Your task to perform on an android device: turn off javascript in the chrome app Image 0: 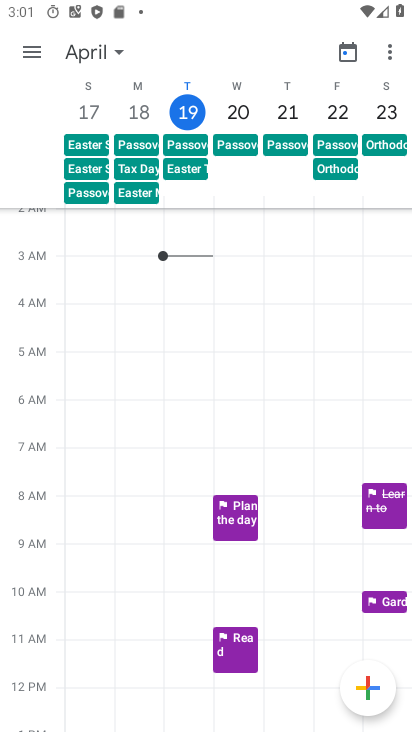
Step 0: press home button
Your task to perform on an android device: turn off javascript in the chrome app Image 1: 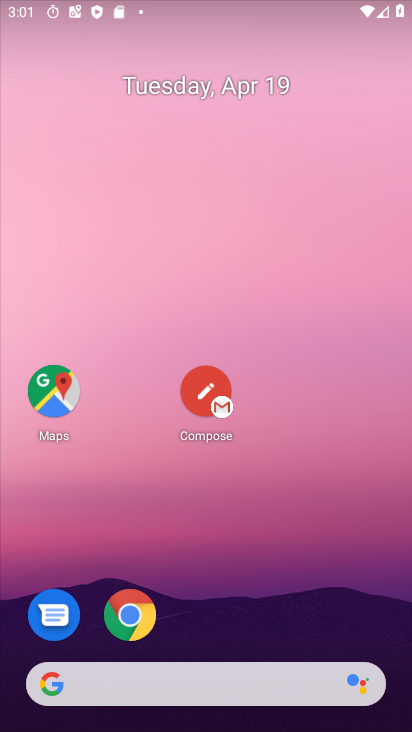
Step 1: drag from (232, 539) to (304, 23)
Your task to perform on an android device: turn off javascript in the chrome app Image 2: 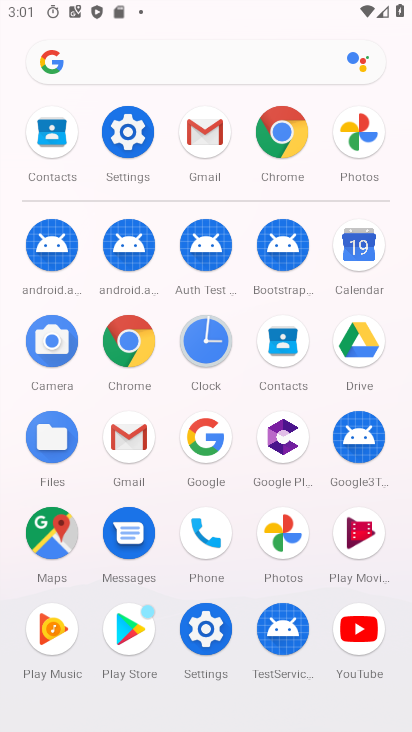
Step 2: click (201, 639)
Your task to perform on an android device: turn off javascript in the chrome app Image 3: 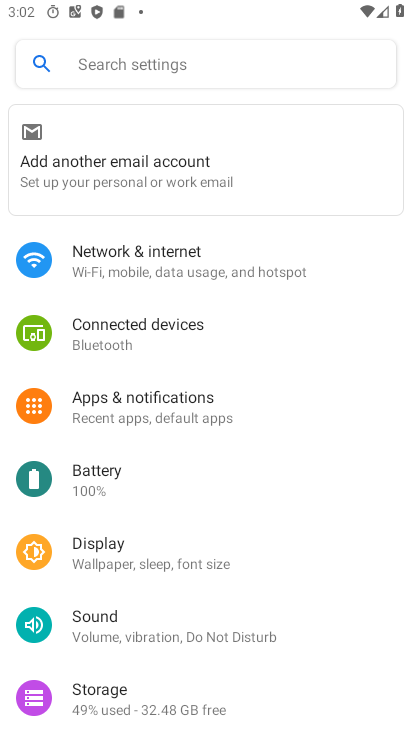
Step 3: press home button
Your task to perform on an android device: turn off javascript in the chrome app Image 4: 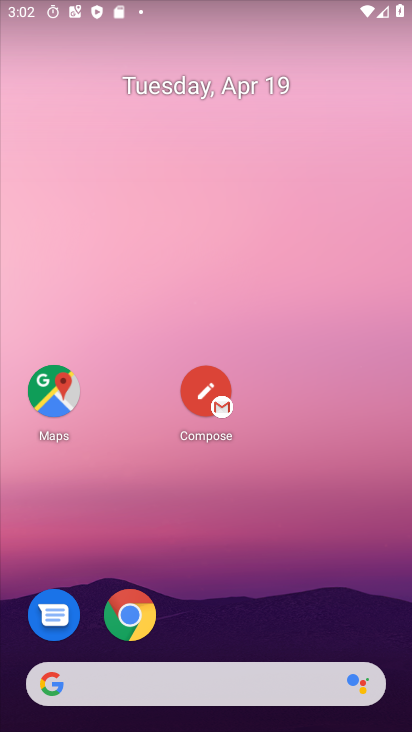
Step 4: drag from (246, 631) to (303, 40)
Your task to perform on an android device: turn off javascript in the chrome app Image 5: 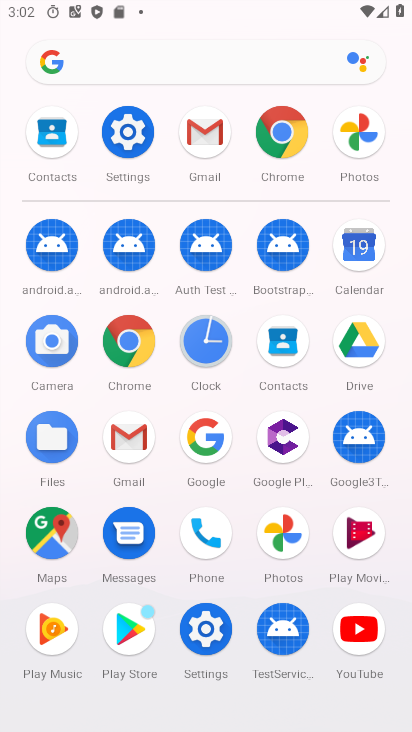
Step 5: click (127, 331)
Your task to perform on an android device: turn off javascript in the chrome app Image 6: 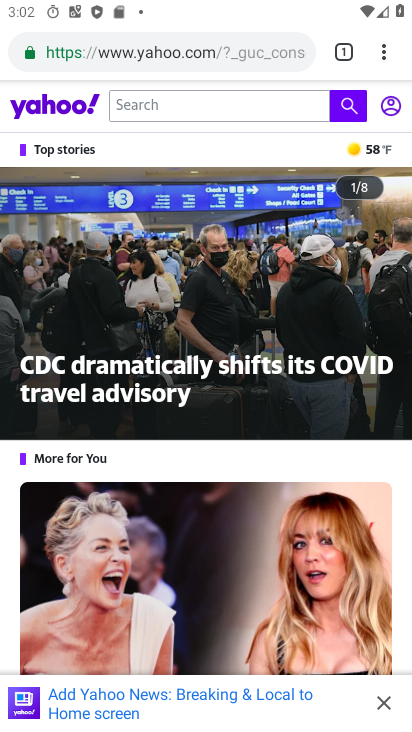
Step 6: click (376, 48)
Your task to perform on an android device: turn off javascript in the chrome app Image 7: 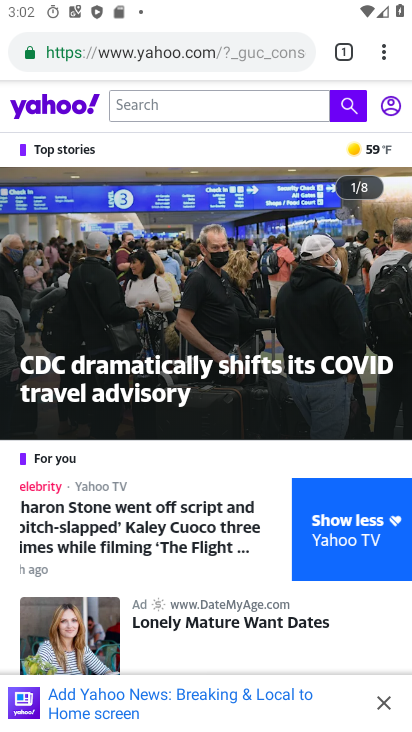
Step 7: click (383, 47)
Your task to perform on an android device: turn off javascript in the chrome app Image 8: 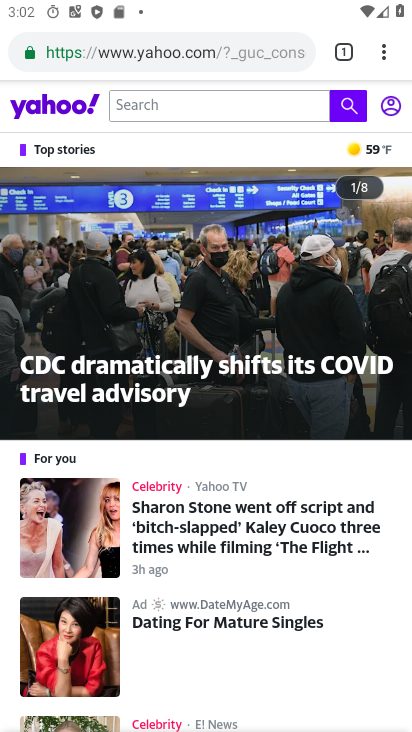
Step 8: click (388, 55)
Your task to perform on an android device: turn off javascript in the chrome app Image 9: 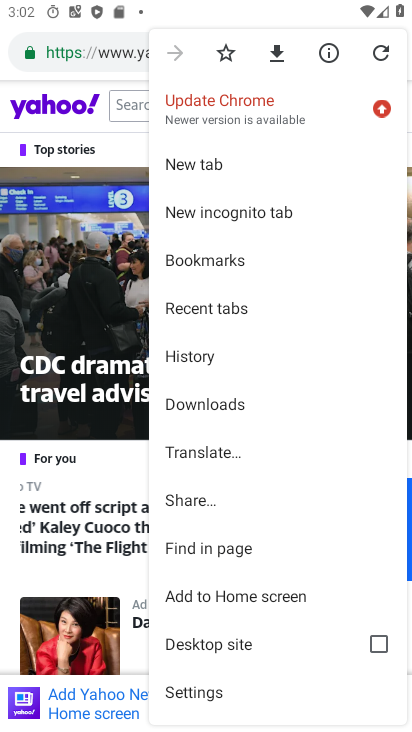
Step 9: drag from (229, 663) to (277, 167)
Your task to perform on an android device: turn off javascript in the chrome app Image 10: 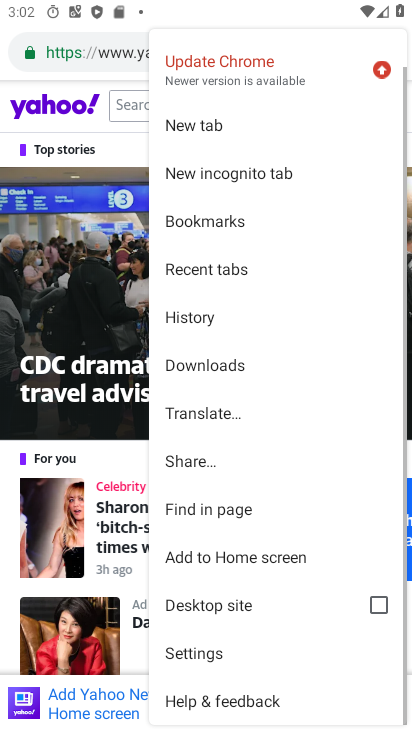
Step 10: click (217, 657)
Your task to perform on an android device: turn off javascript in the chrome app Image 11: 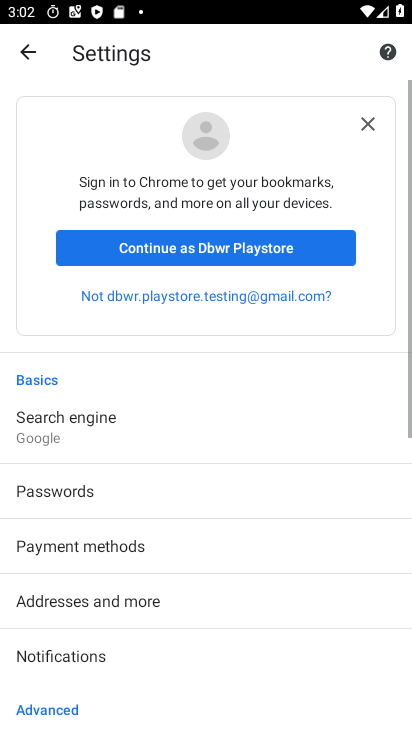
Step 11: drag from (208, 563) to (269, 113)
Your task to perform on an android device: turn off javascript in the chrome app Image 12: 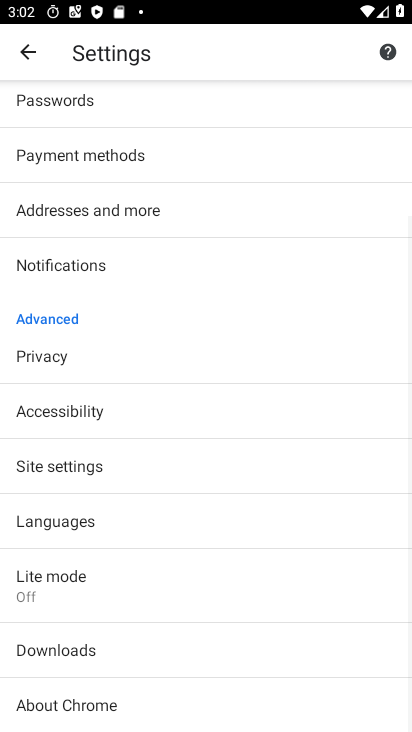
Step 12: click (125, 481)
Your task to perform on an android device: turn off javascript in the chrome app Image 13: 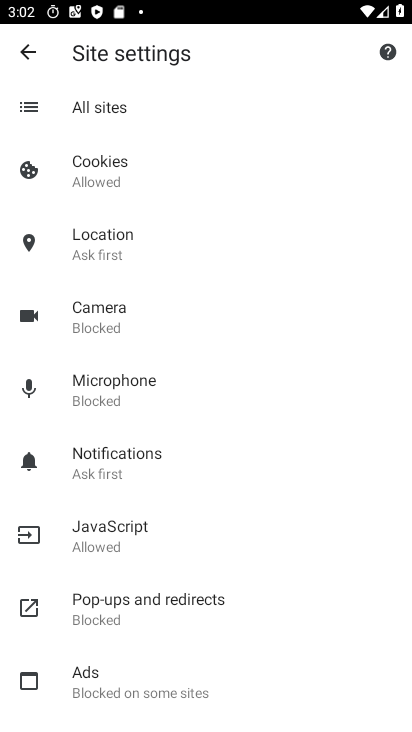
Step 13: click (158, 524)
Your task to perform on an android device: turn off javascript in the chrome app Image 14: 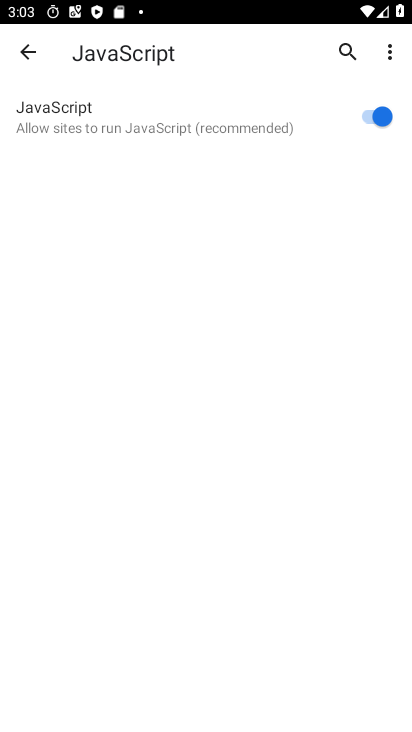
Step 14: click (365, 115)
Your task to perform on an android device: turn off javascript in the chrome app Image 15: 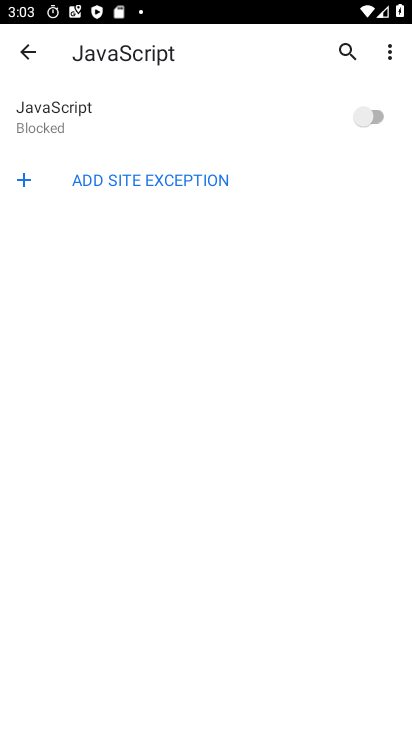
Step 15: task complete